Your task to perform on an android device: manage bookmarks in the chrome app Image 0: 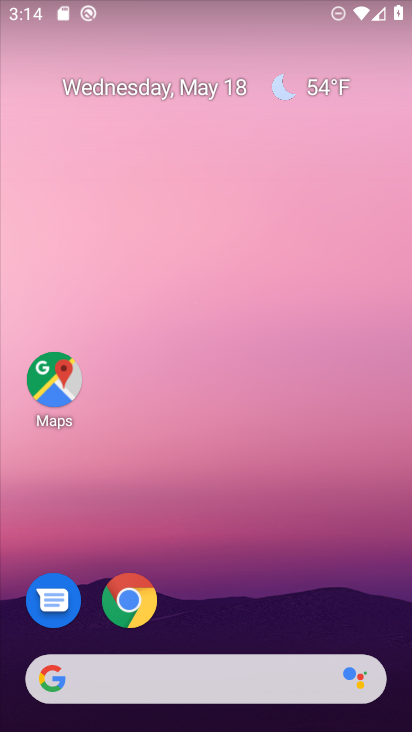
Step 0: drag from (215, 617) to (323, 145)
Your task to perform on an android device: manage bookmarks in the chrome app Image 1: 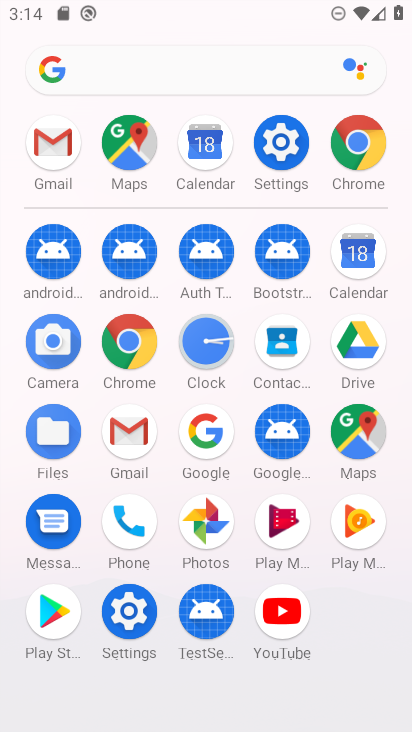
Step 1: click (133, 345)
Your task to perform on an android device: manage bookmarks in the chrome app Image 2: 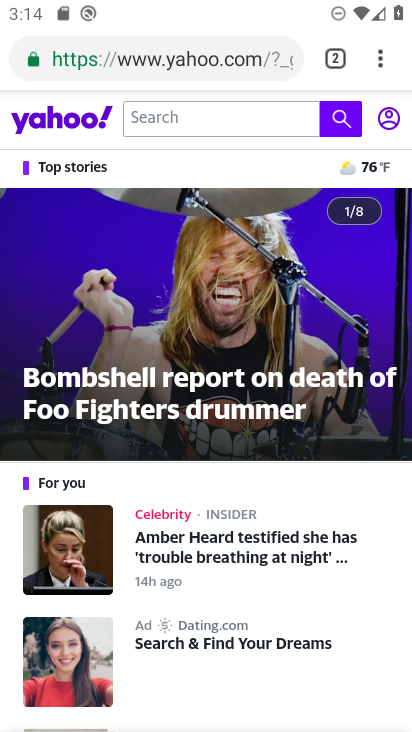
Step 2: click (378, 60)
Your task to perform on an android device: manage bookmarks in the chrome app Image 3: 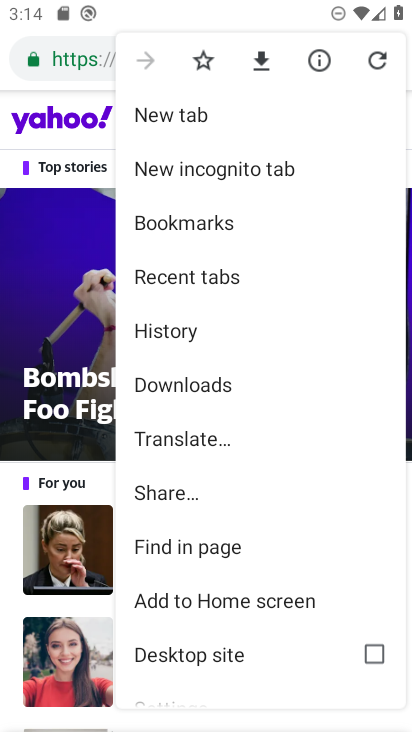
Step 3: click (193, 232)
Your task to perform on an android device: manage bookmarks in the chrome app Image 4: 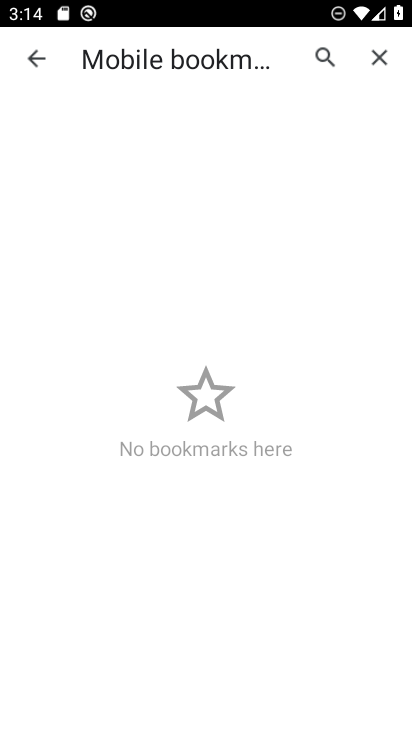
Step 4: task complete